Your task to perform on an android device: refresh tabs in the chrome app Image 0: 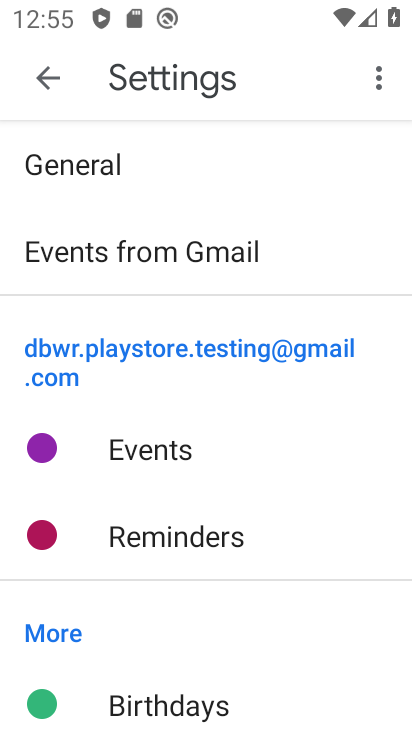
Step 0: press home button
Your task to perform on an android device: refresh tabs in the chrome app Image 1: 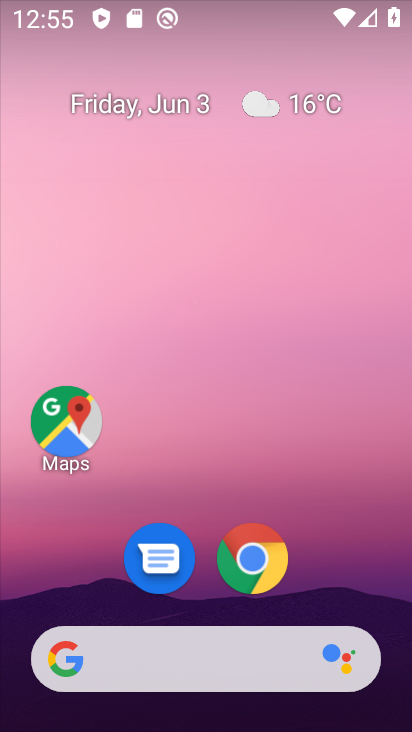
Step 1: drag from (348, 504) to (350, 204)
Your task to perform on an android device: refresh tabs in the chrome app Image 2: 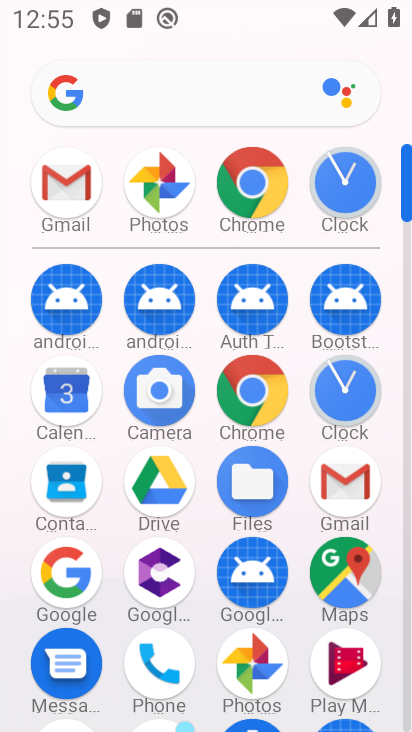
Step 2: click (249, 379)
Your task to perform on an android device: refresh tabs in the chrome app Image 3: 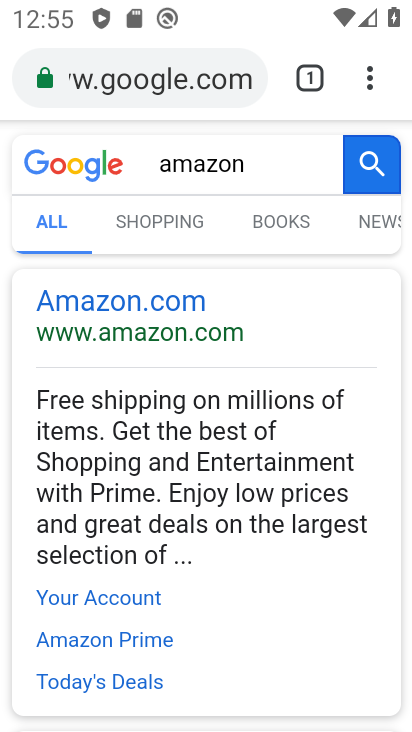
Step 3: click (369, 83)
Your task to perform on an android device: refresh tabs in the chrome app Image 4: 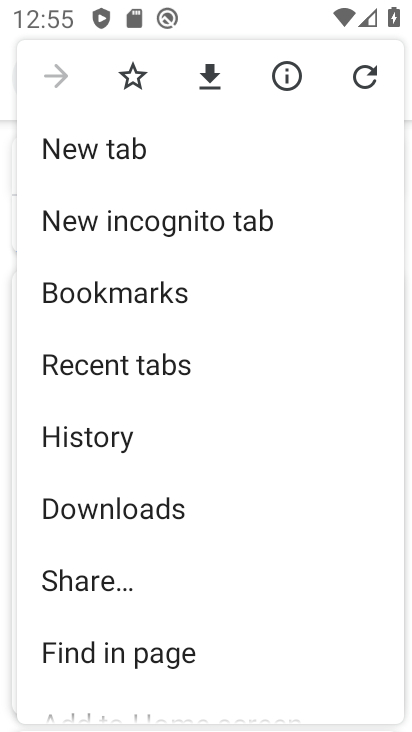
Step 4: click (364, 74)
Your task to perform on an android device: refresh tabs in the chrome app Image 5: 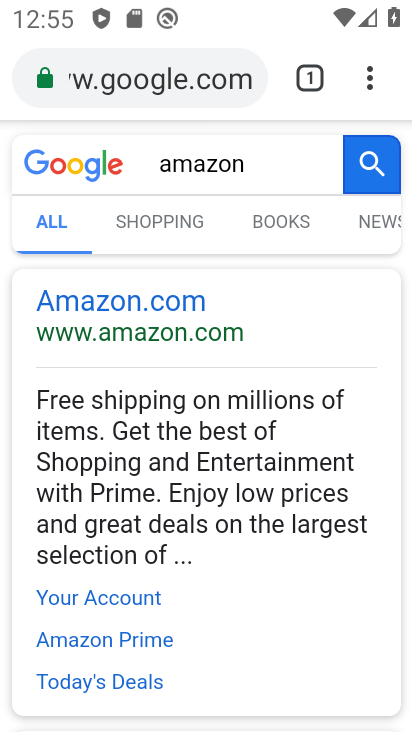
Step 5: task complete